Your task to perform on an android device: toggle notification dots Image 0: 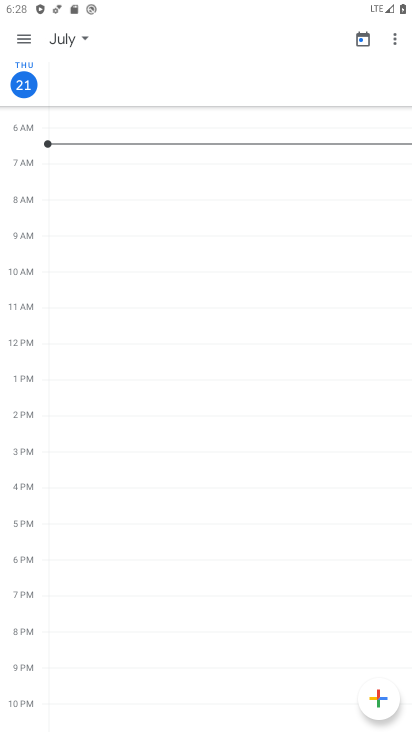
Step 0: press home button
Your task to perform on an android device: toggle notification dots Image 1: 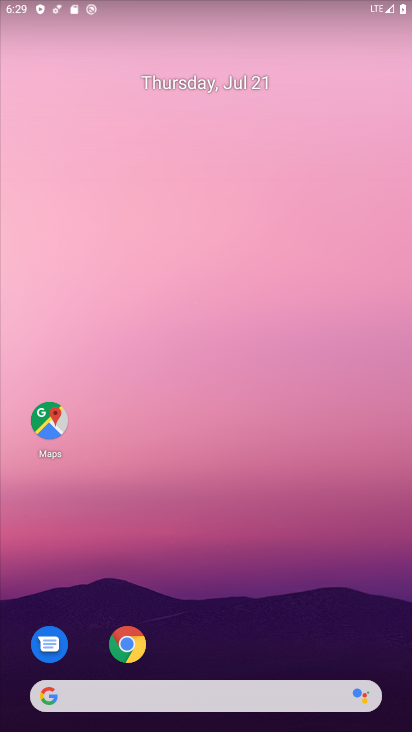
Step 1: drag from (227, 712) to (191, 119)
Your task to perform on an android device: toggle notification dots Image 2: 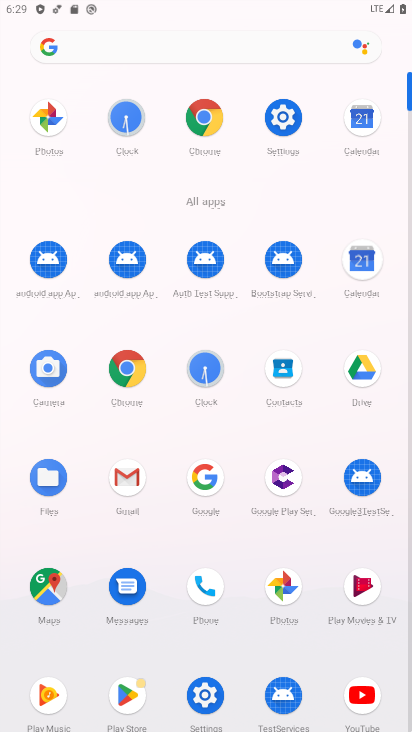
Step 2: click (267, 116)
Your task to perform on an android device: toggle notification dots Image 3: 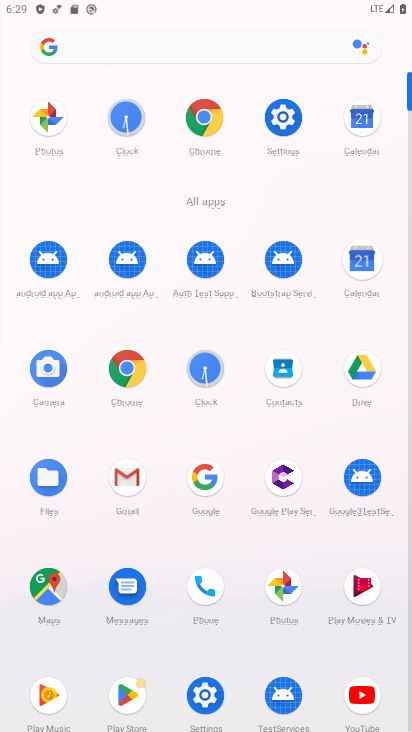
Step 3: click (267, 116)
Your task to perform on an android device: toggle notification dots Image 4: 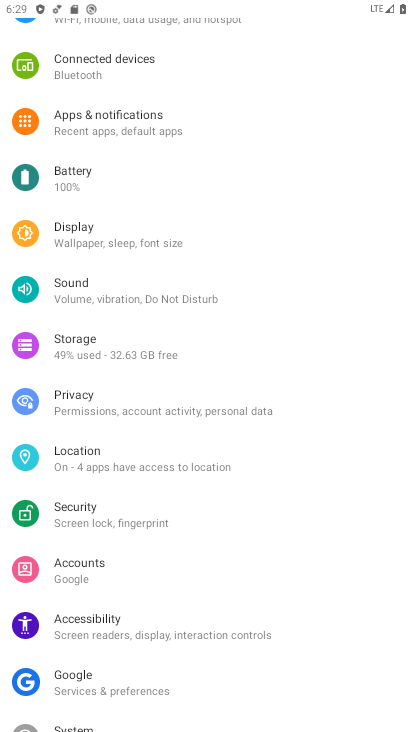
Step 4: click (182, 130)
Your task to perform on an android device: toggle notification dots Image 5: 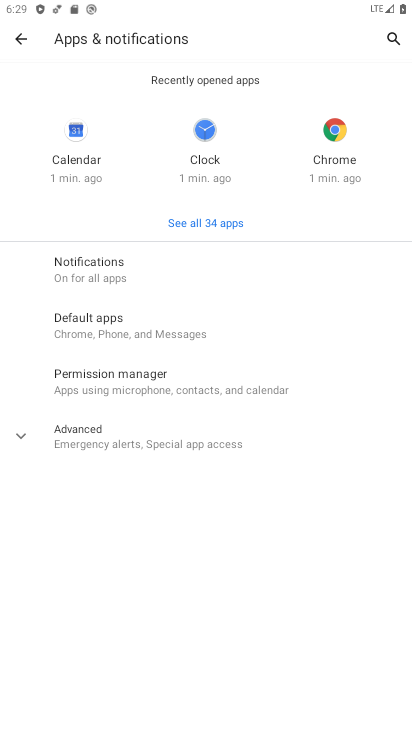
Step 5: click (138, 268)
Your task to perform on an android device: toggle notification dots Image 6: 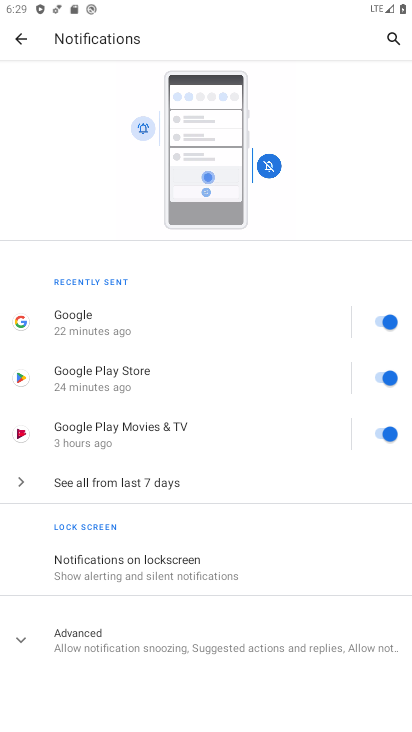
Step 6: click (199, 637)
Your task to perform on an android device: toggle notification dots Image 7: 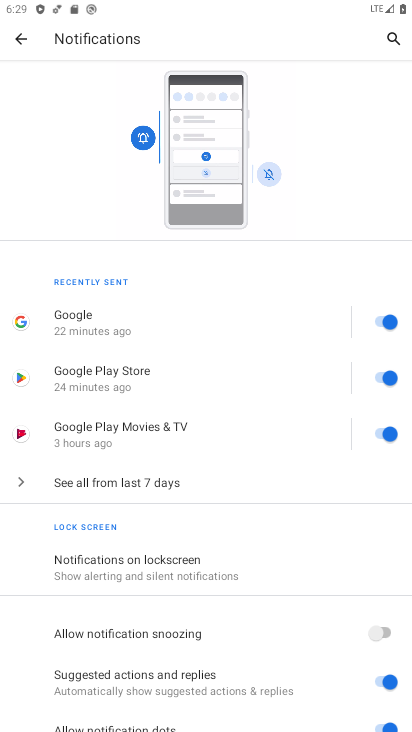
Step 7: drag from (270, 622) to (201, 171)
Your task to perform on an android device: toggle notification dots Image 8: 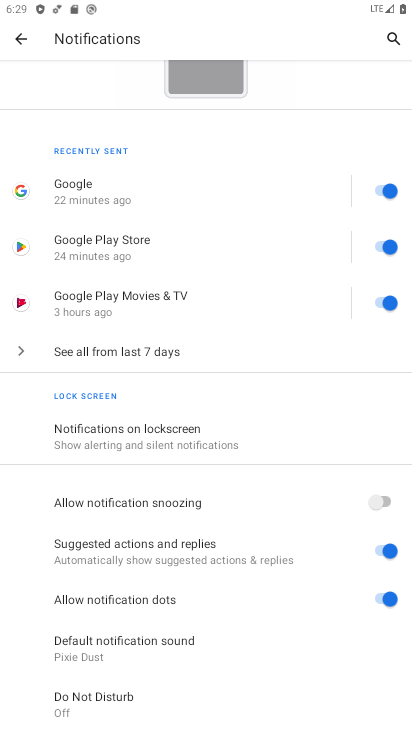
Step 8: click (386, 595)
Your task to perform on an android device: toggle notification dots Image 9: 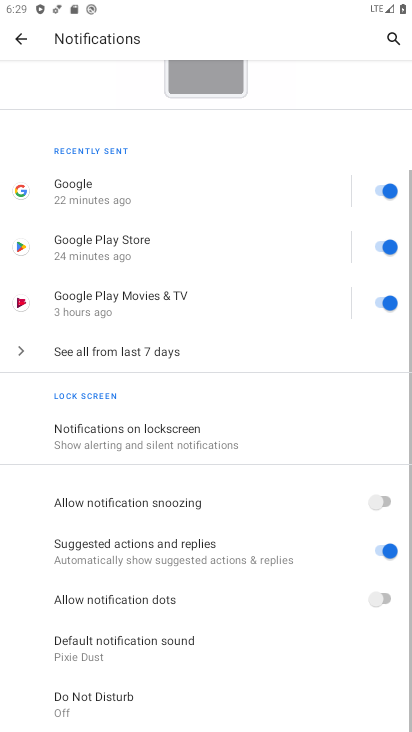
Step 9: task complete